Your task to perform on an android device: set the stopwatch Image 0: 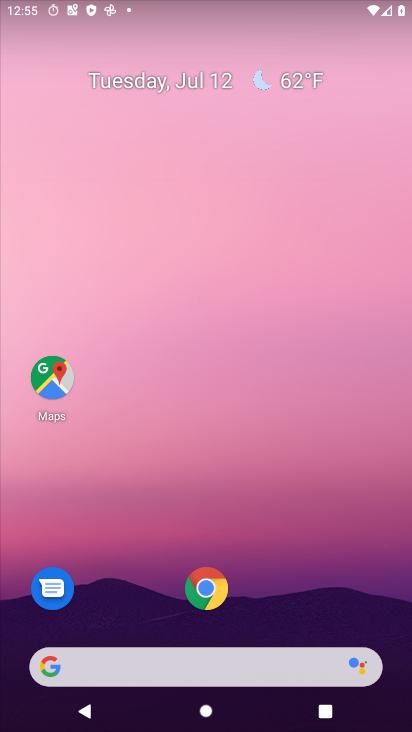
Step 0: drag from (228, 380) to (228, 2)
Your task to perform on an android device: set the stopwatch Image 1: 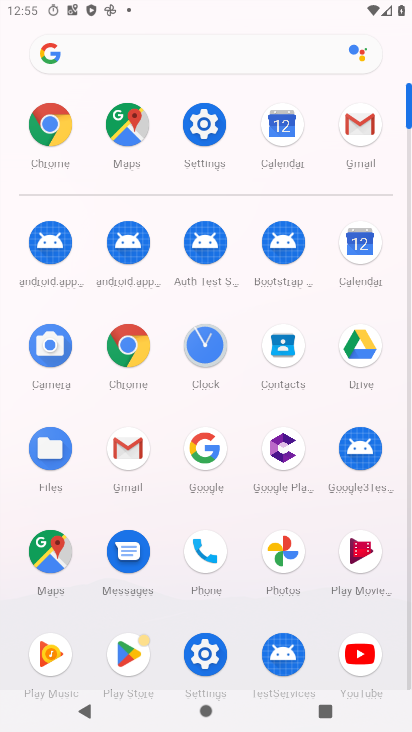
Step 1: click (207, 342)
Your task to perform on an android device: set the stopwatch Image 2: 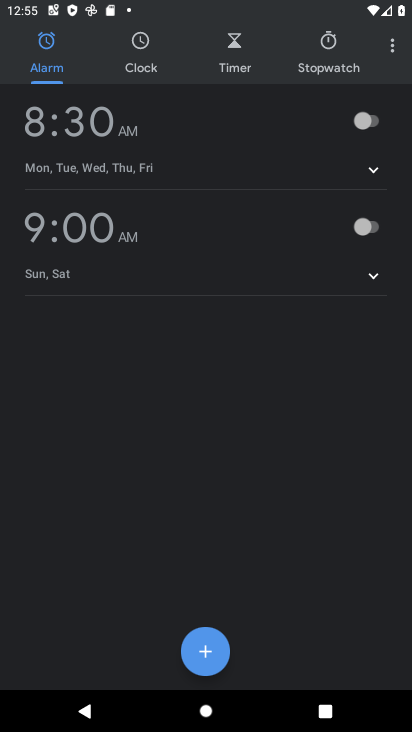
Step 2: click (318, 64)
Your task to perform on an android device: set the stopwatch Image 3: 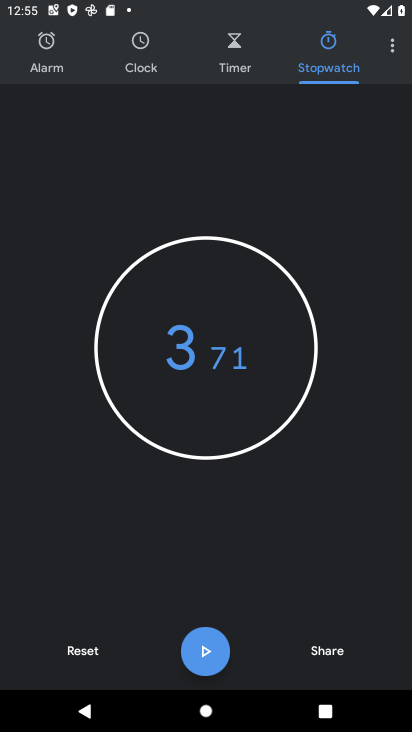
Step 3: click (88, 655)
Your task to perform on an android device: set the stopwatch Image 4: 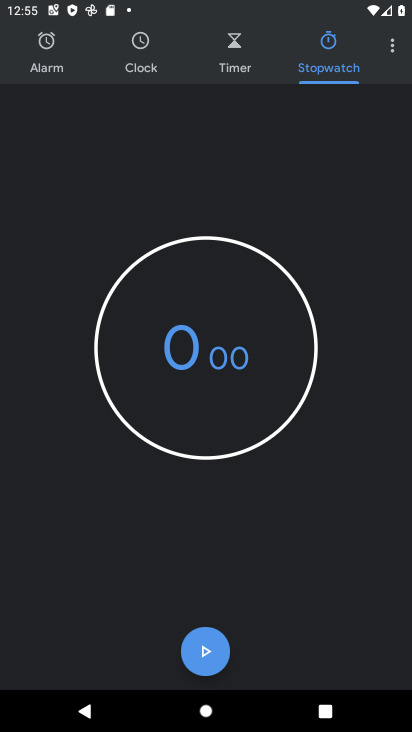
Step 4: click (208, 646)
Your task to perform on an android device: set the stopwatch Image 5: 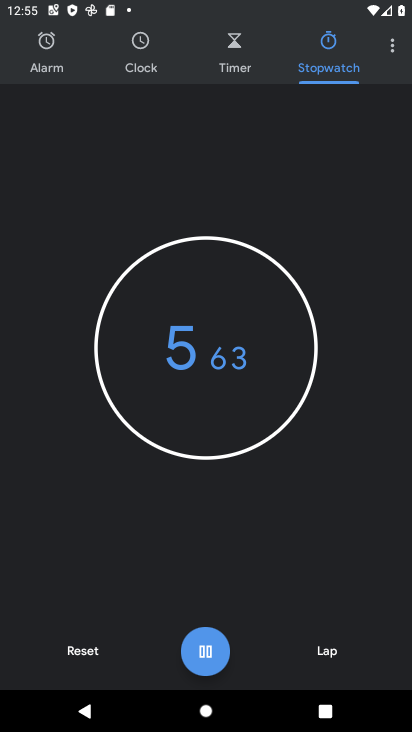
Step 5: click (208, 646)
Your task to perform on an android device: set the stopwatch Image 6: 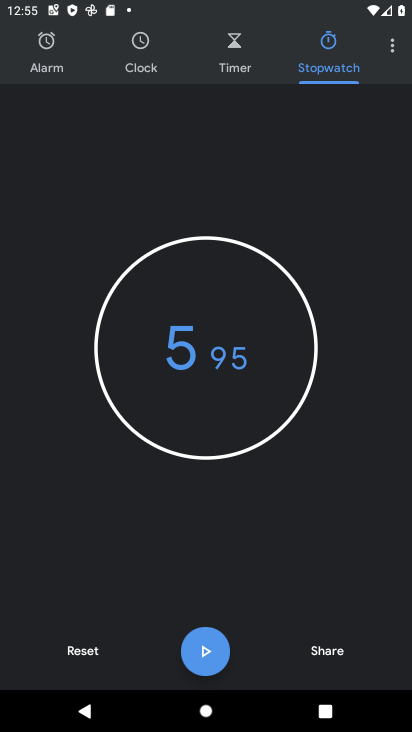
Step 6: task complete